Your task to perform on an android device: check out phone information Image 0: 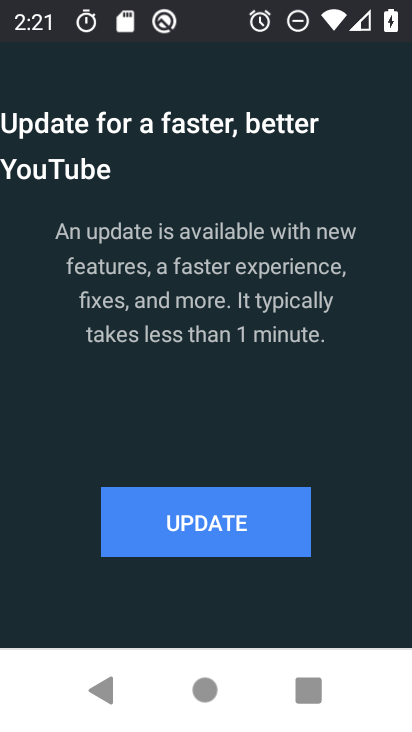
Step 0: press home button
Your task to perform on an android device: check out phone information Image 1: 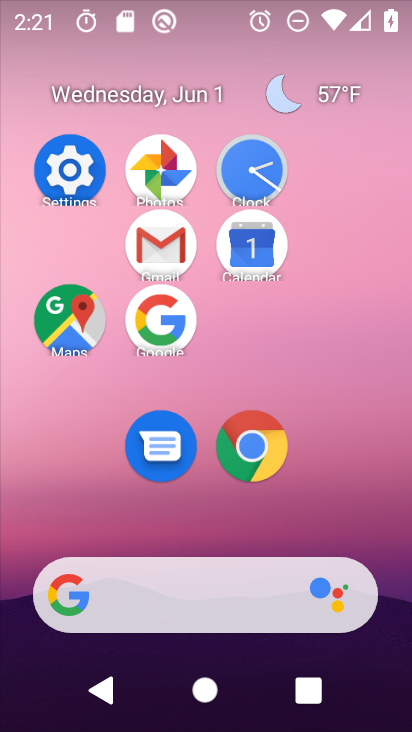
Step 1: click (54, 144)
Your task to perform on an android device: check out phone information Image 2: 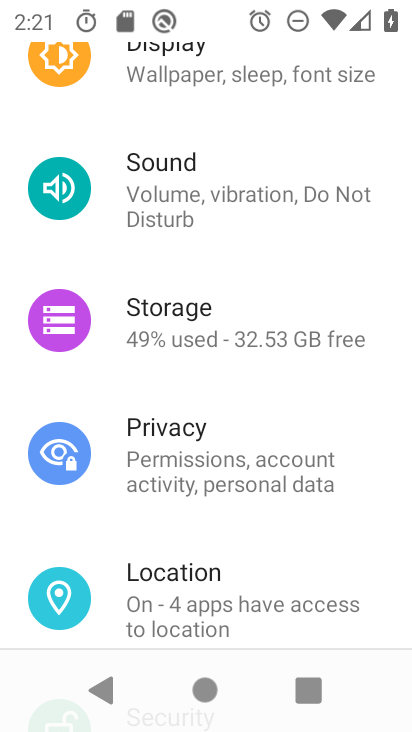
Step 2: drag from (239, 565) to (216, 124)
Your task to perform on an android device: check out phone information Image 3: 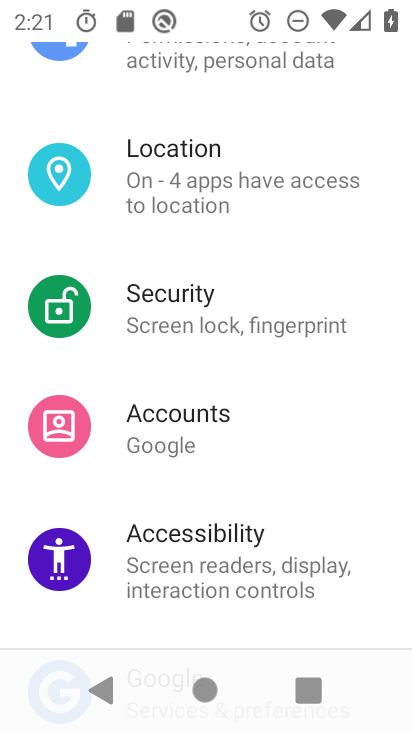
Step 3: drag from (256, 562) to (223, 148)
Your task to perform on an android device: check out phone information Image 4: 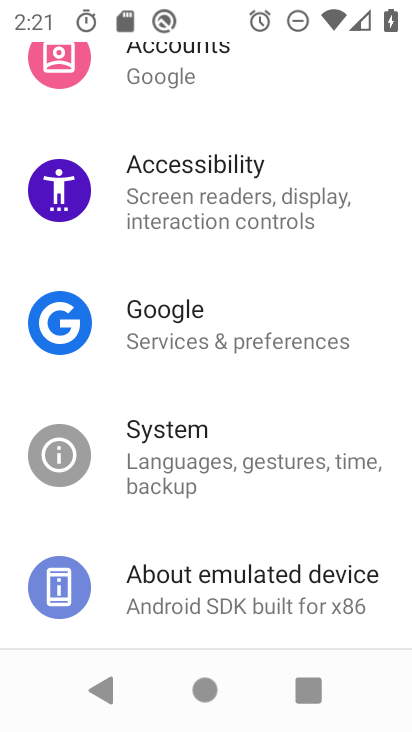
Step 4: click (255, 574)
Your task to perform on an android device: check out phone information Image 5: 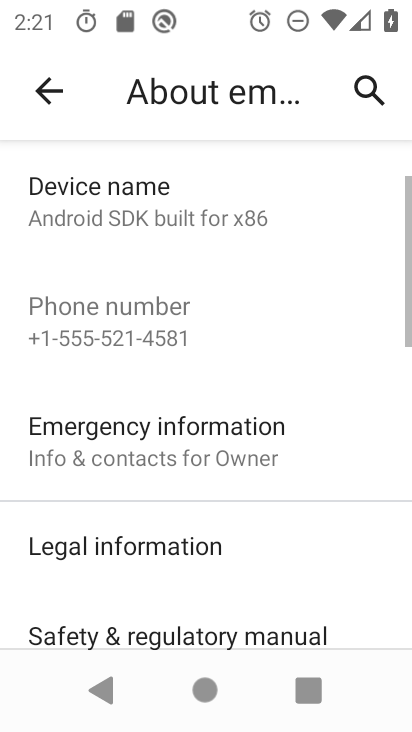
Step 5: drag from (275, 456) to (247, 168)
Your task to perform on an android device: check out phone information Image 6: 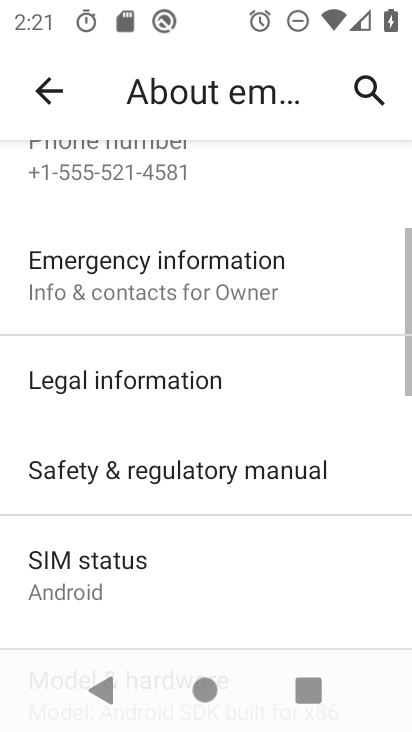
Step 6: drag from (218, 434) to (238, 140)
Your task to perform on an android device: check out phone information Image 7: 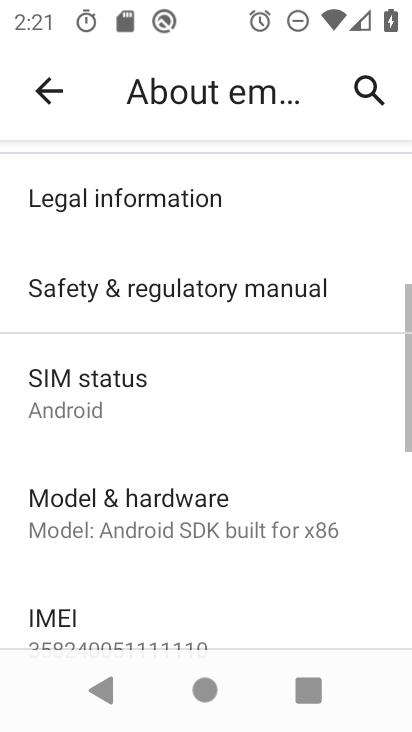
Step 7: click (237, 500)
Your task to perform on an android device: check out phone information Image 8: 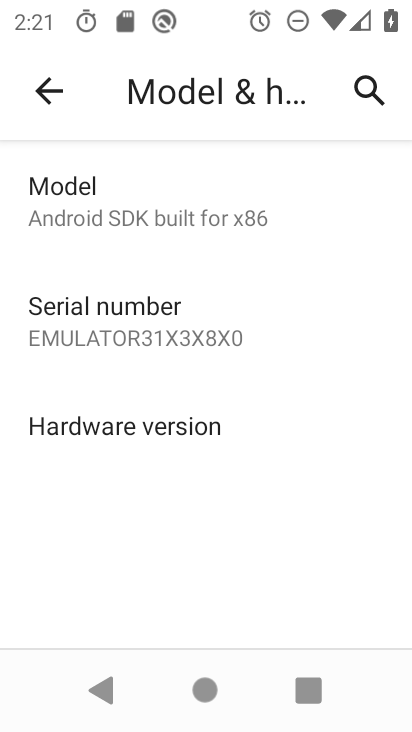
Step 8: task complete